Your task to perform on an android device: Open settings on Google Maps Image 0: 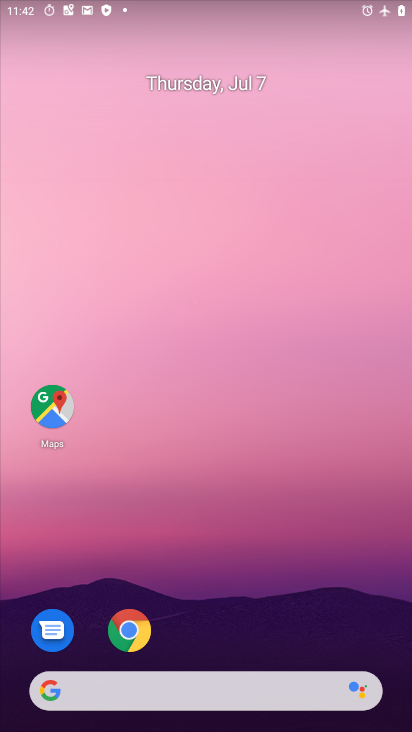
Step 0: click (39, 411)
Your task to perform on an android device: Open settings on Google Maps Image 1: 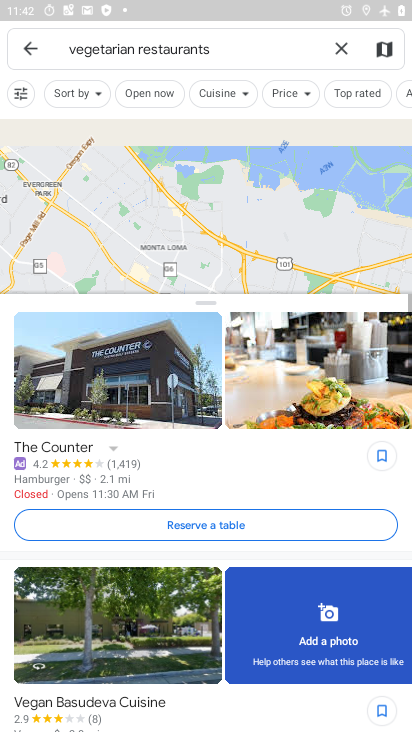
Step 1: click (32, 49)
Your task to perform on an android device: Open settings on Google Maps Image 2: 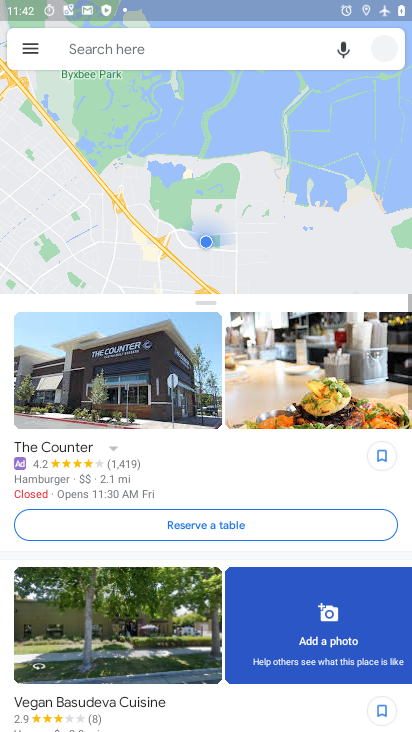
Step 2: click (32, 49)
Your task to perform on an android device: Open settings on Google Maps Image 3: 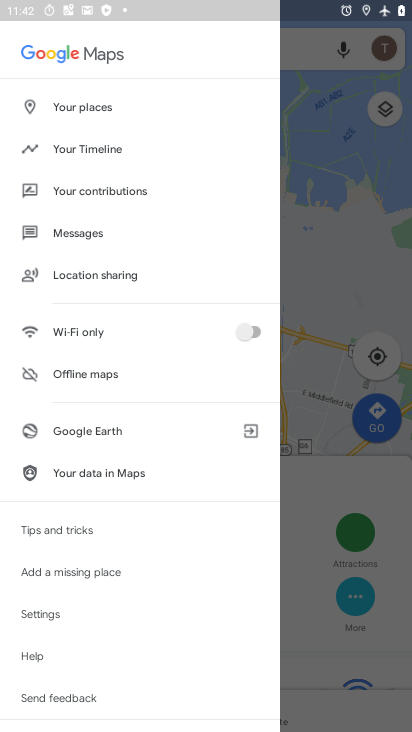
Step 3: click (63, 608)
Your task to perform on an android device: Open settings on Google Maps Image 4: 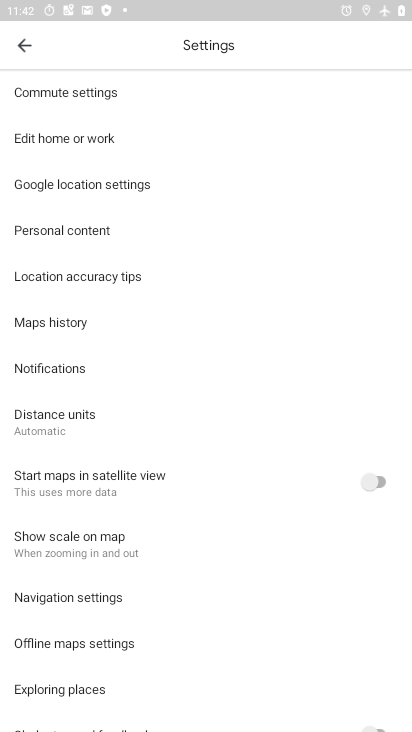
Step 4: task complete